Your task to perform on an android device: visit the assistant section in the google photos Image 0: 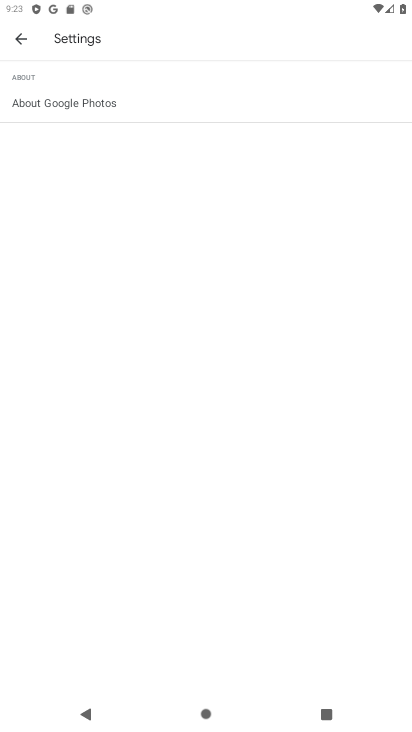
Step 0: click (19, 45)
Your task to perform on an android device: visit the assistant section in the google photos Image 1: 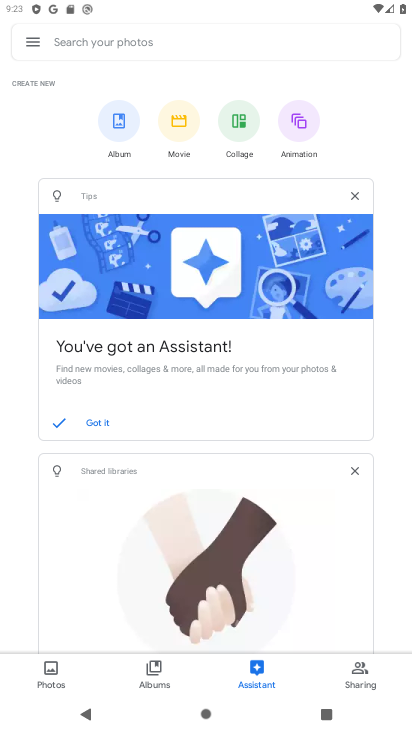
Step 1: task complete